Your task to perform on an android device: read, delete, or share a saved page in the chrome app Image 0: 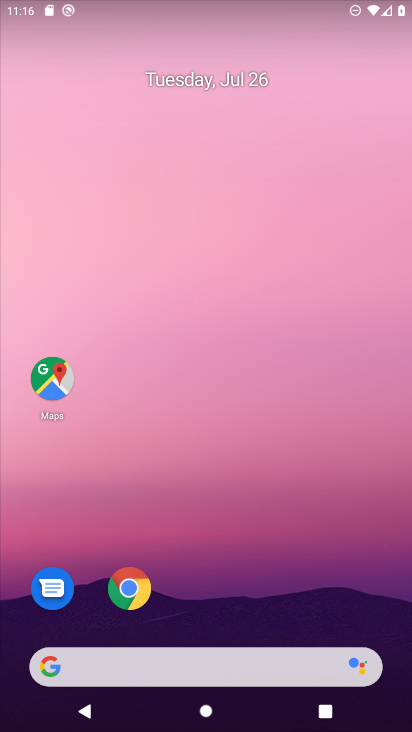
Step 0: click (141, 594)
Your task to perform on an android device: read, delete, or share a saved page in the chrome app Image 1: 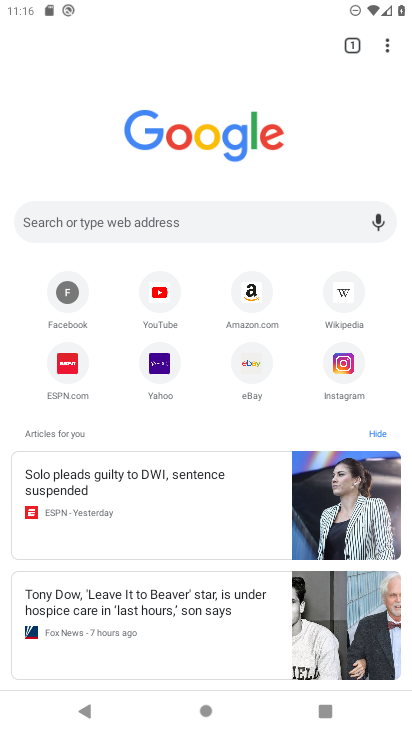
Step 1: click (389, 50)
Your task to perform on an android device: read, delete, or share a saved page in the chrome app Image 2: 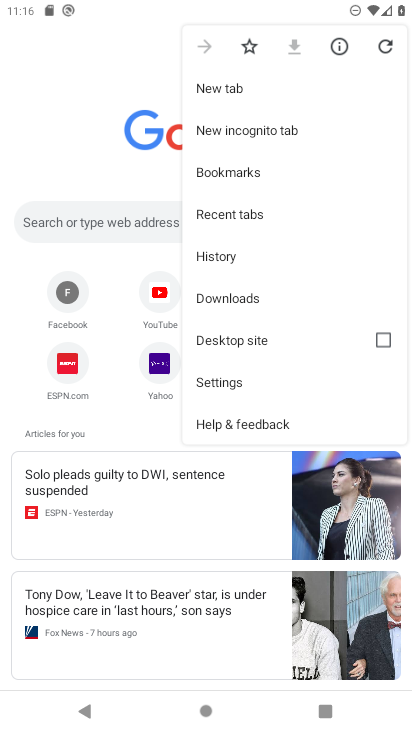
Step 2: click (224, 380)
Your task to perform on an android device: read, delete, or share a saved page in the chrome app Image 3: 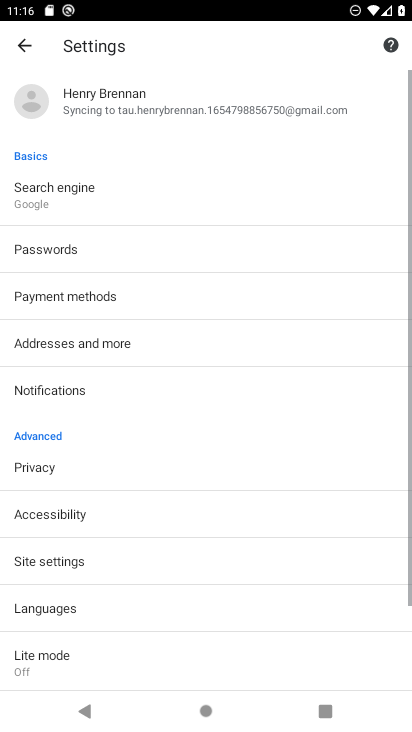
Step 3: task complete